Your task to perform on an android device: turn pop-ups off in chrome Image 0: 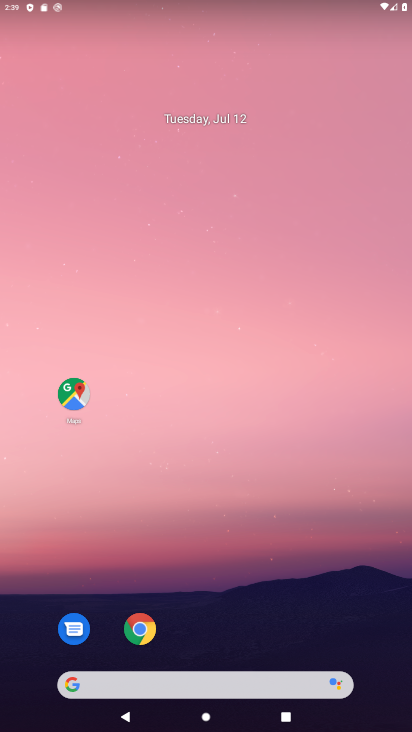
Step 0: click (142, 630)
Your task to perform on an android device: turn pop-ups off in chrome Image 1: 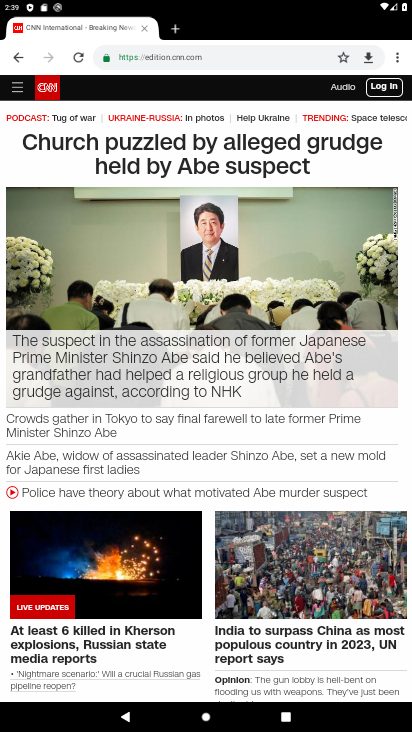
Step 1: click (398, 57)
Your task to perform on an android device: turn pop-ups off in chrome Image 2: 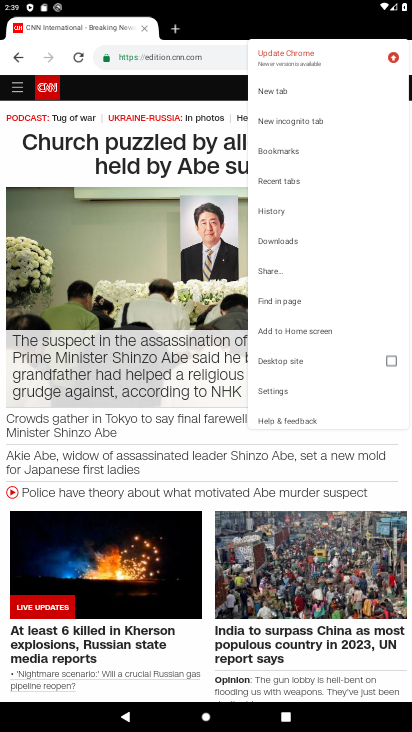
Step 2: click (276, 388)
Your task to perform on an android device: turn pop-ups off in chrome Image 3: 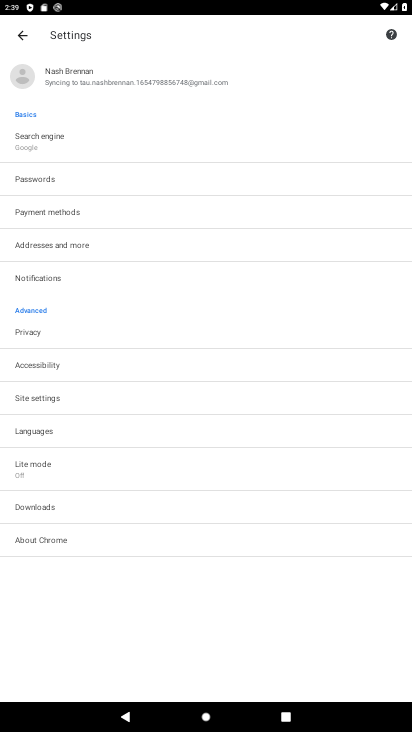
Step 3: click (40, 397)
Your task to perform on an android device: turn pop-ups off in chrome Image 4: 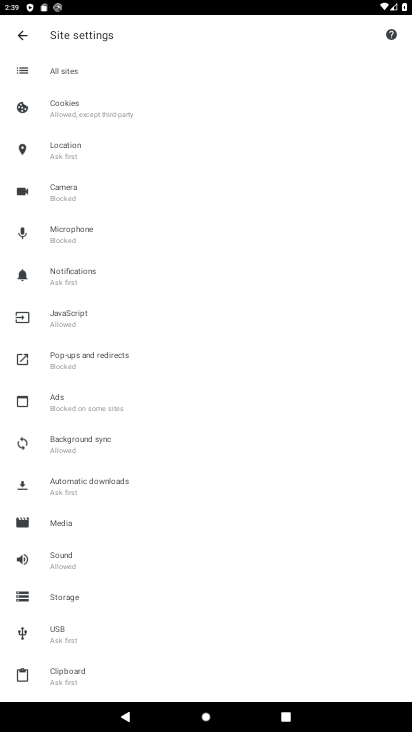
Step 4: click (74, 357)
Your task to perform on an android device: turn pop-ups off in chrome Image 5: 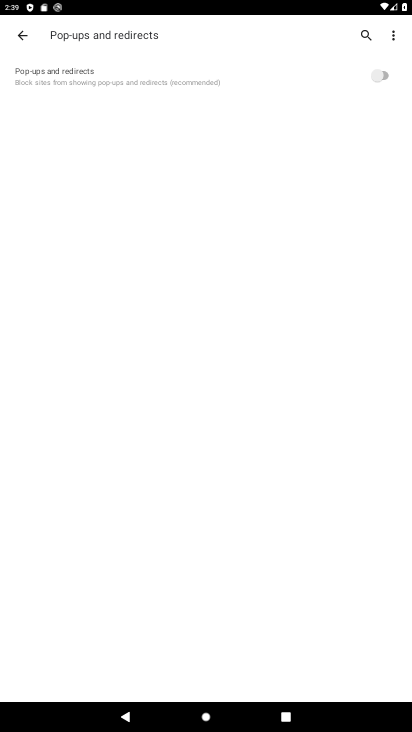
Step 5: task complete